Your task to perform on an android device: toggle javascript in the chrome app Image 0: 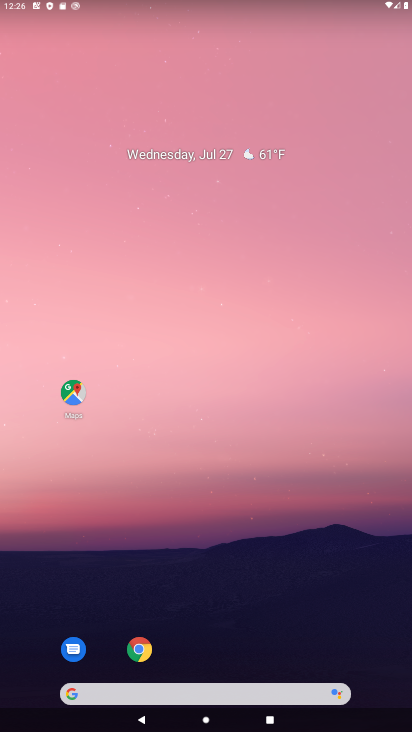
Step 0: click (138, 655)
Your task to perform on an android device: toggle javascript in the chrome app Image 1: 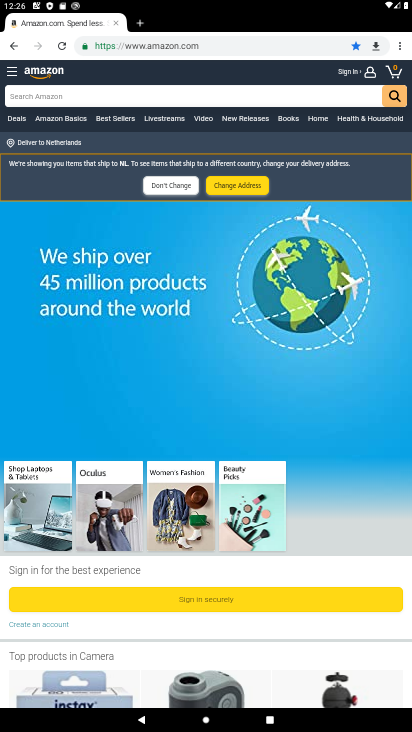
Step 1: click (401, 56)
Your task to perform on an android device: toggle javascript in the chrome app Image 2: 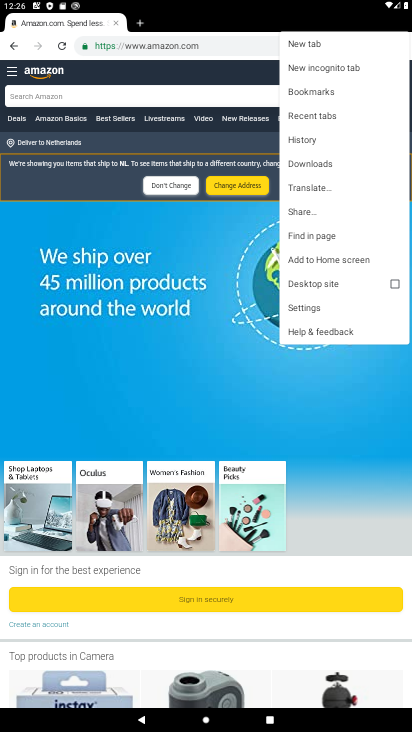
Step 2: click (333, 305)
Your task to perform on an android device: toggle javascript in the chrome app Image 3: 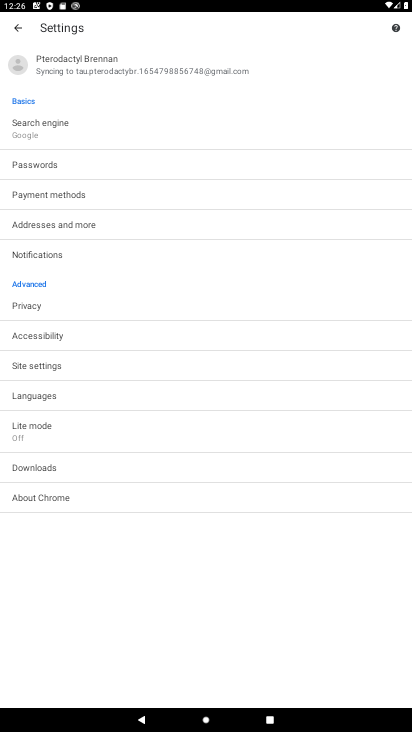
Step 3: click (83, 371)
Your task to perform on an android device: toggle javascript in the chrome app Image 4: 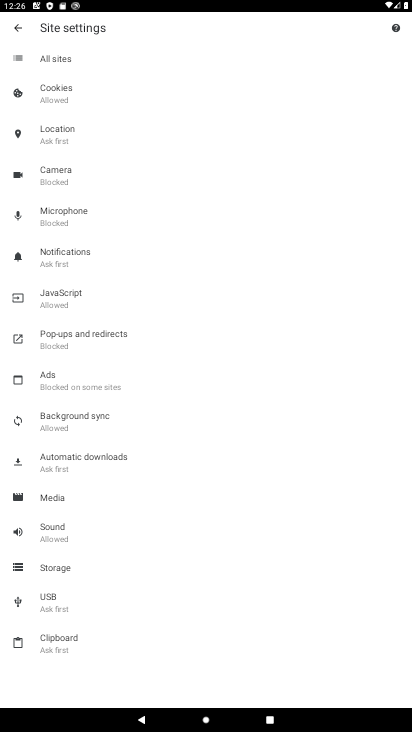
Step 4: click (93, 291)
Your task to perform on an android device: toggle javascript in the chrome app Image 5: 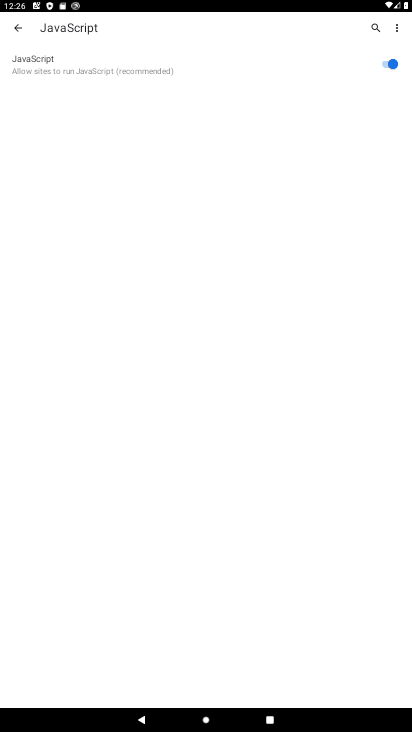
Step 5: click (390, 65)
Your task to perform on an android device: toggle javascript in the chrome app Image 6: 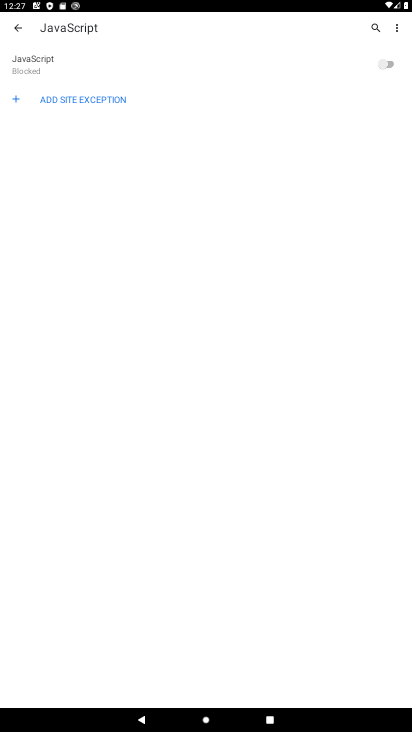
Step 6: task complete